Your task to perform on an android device: Clear the cart on newegg. Add logitech g933 to the cart on newegg Image 0: 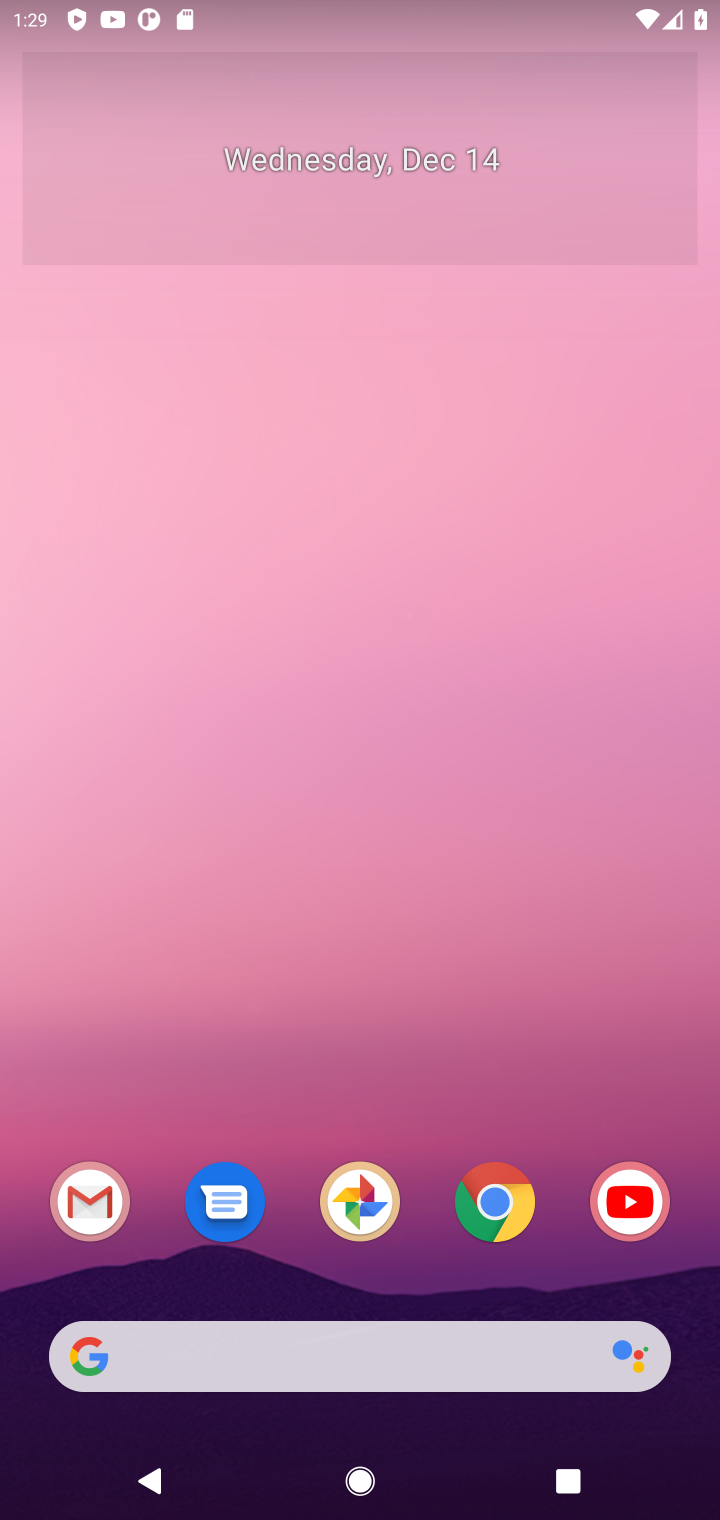
Step 0: click (489, 1209)
Your task to perform on an android device: Clear the cart on newegg. Add logitech g933 to the cart on newegg Image 1: 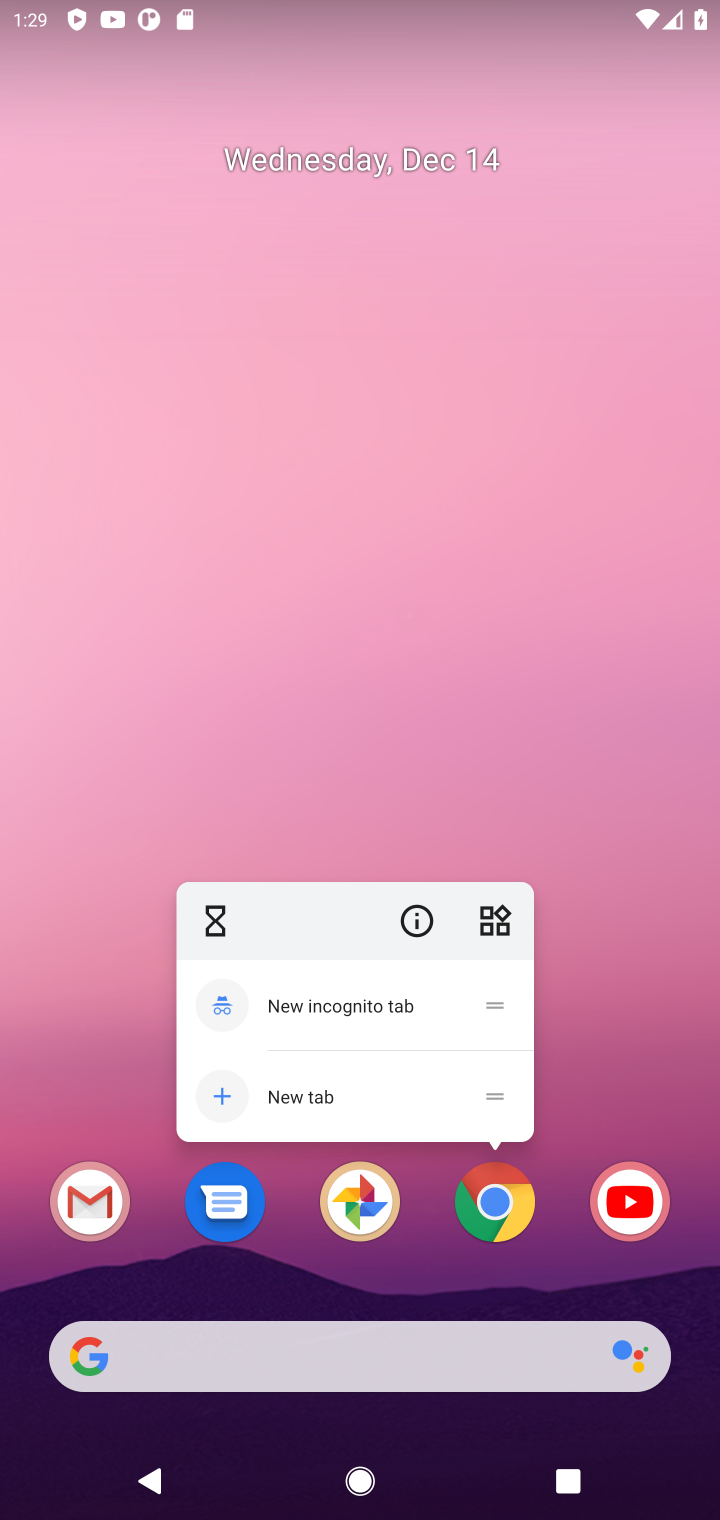
Step 1: click (500, 1176)
Your task to perform on an android device: Clear the cart on newegg. Add logitech g933 to the cart on newegg Image 2: 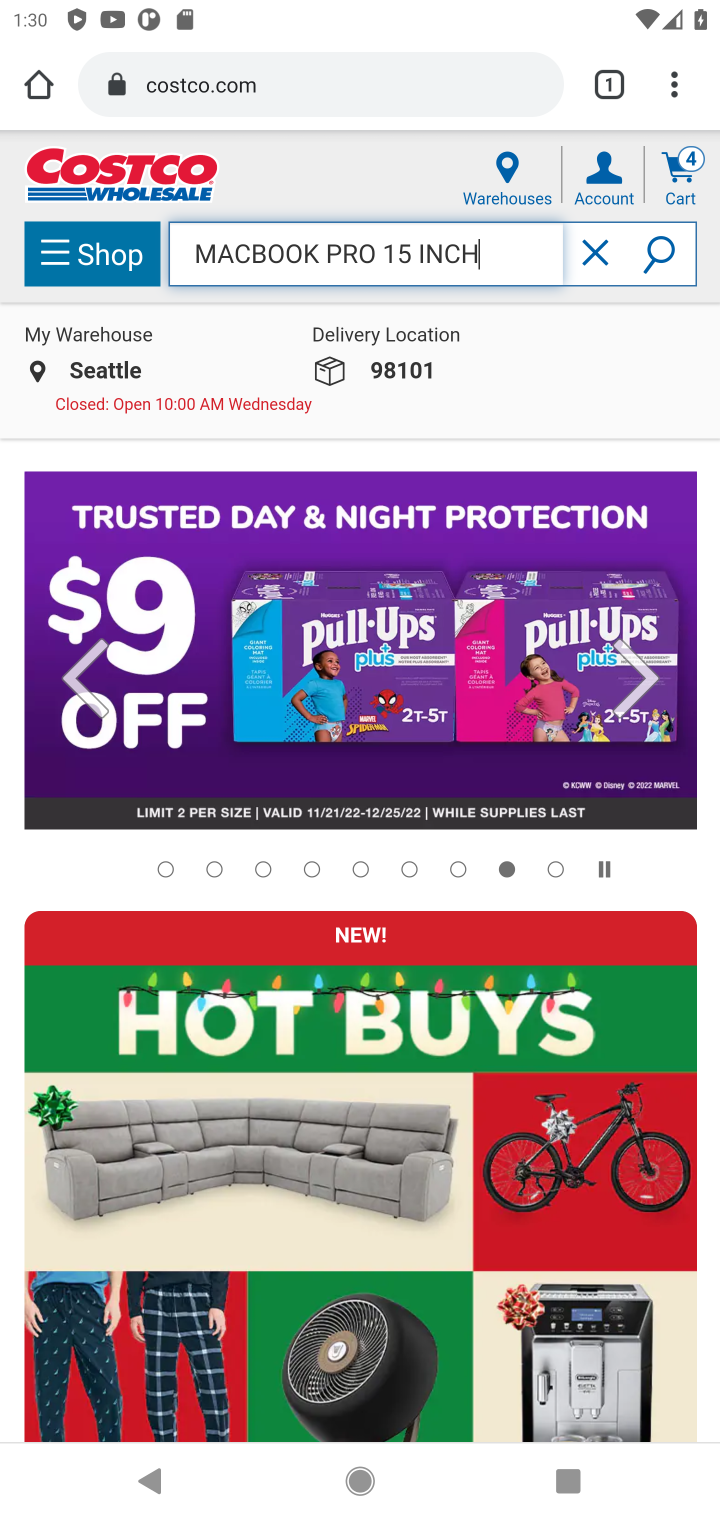
Step 2: click (289, 69)
Your task to perform on an android device: Clear the cart on newegg. Add logitech g933 to the cart on newegg Image 3: 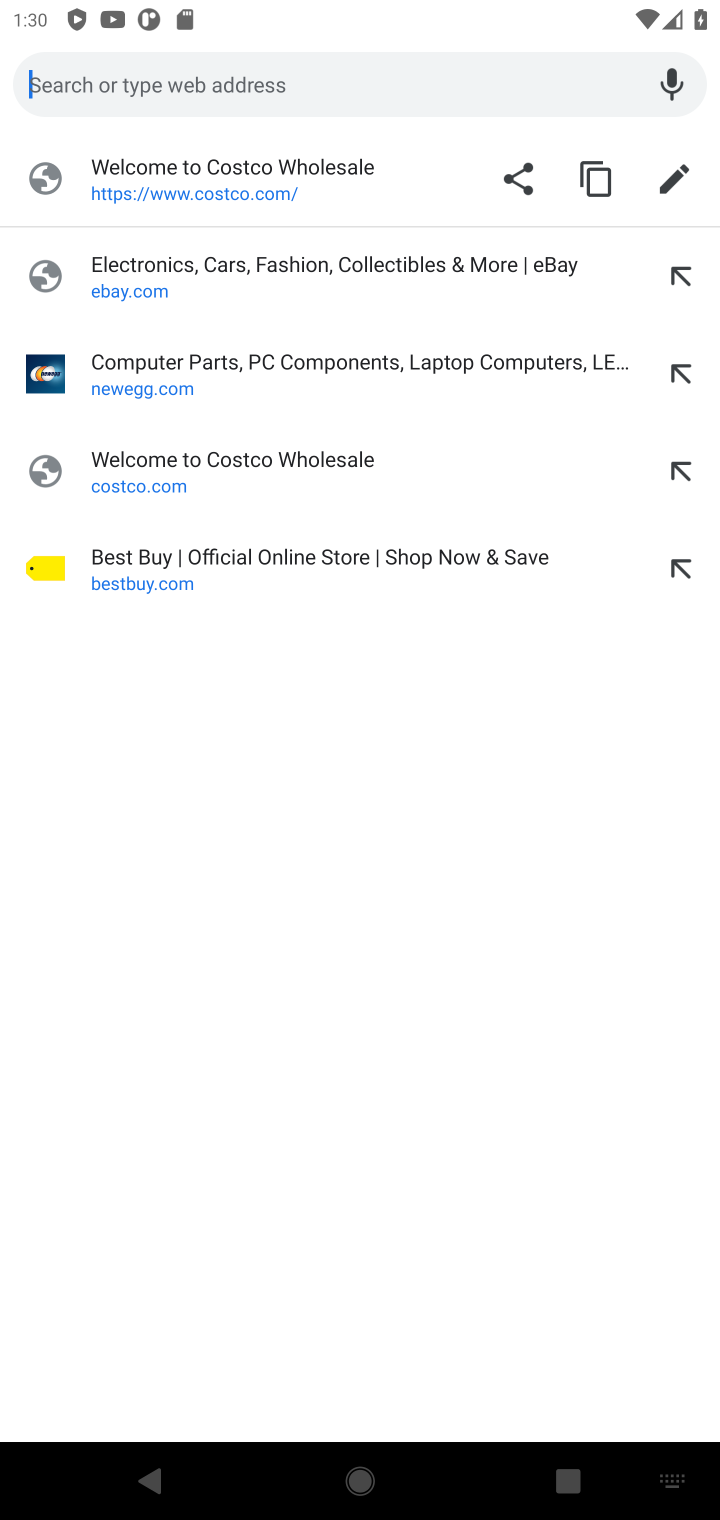
Step 3: click (198, 362)
Your task to perform on an android device: Clear the cart on newegg. Add logitech g933 to the cart on newegg Image 4: 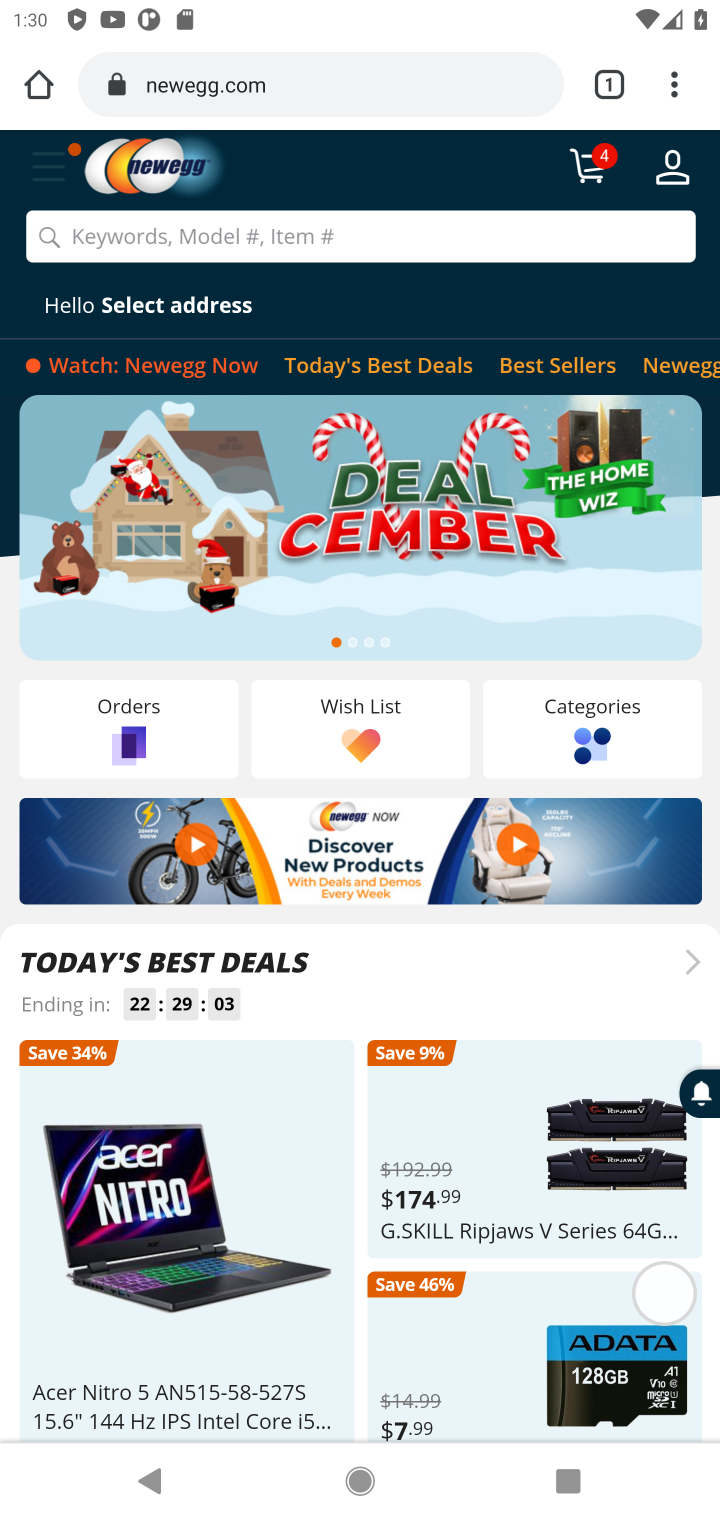
Step 4: click (394, 232)
Your task to perform on an android device: Clear the cart on newegg. Add logitech g933 to the cart on newegg Image 5: 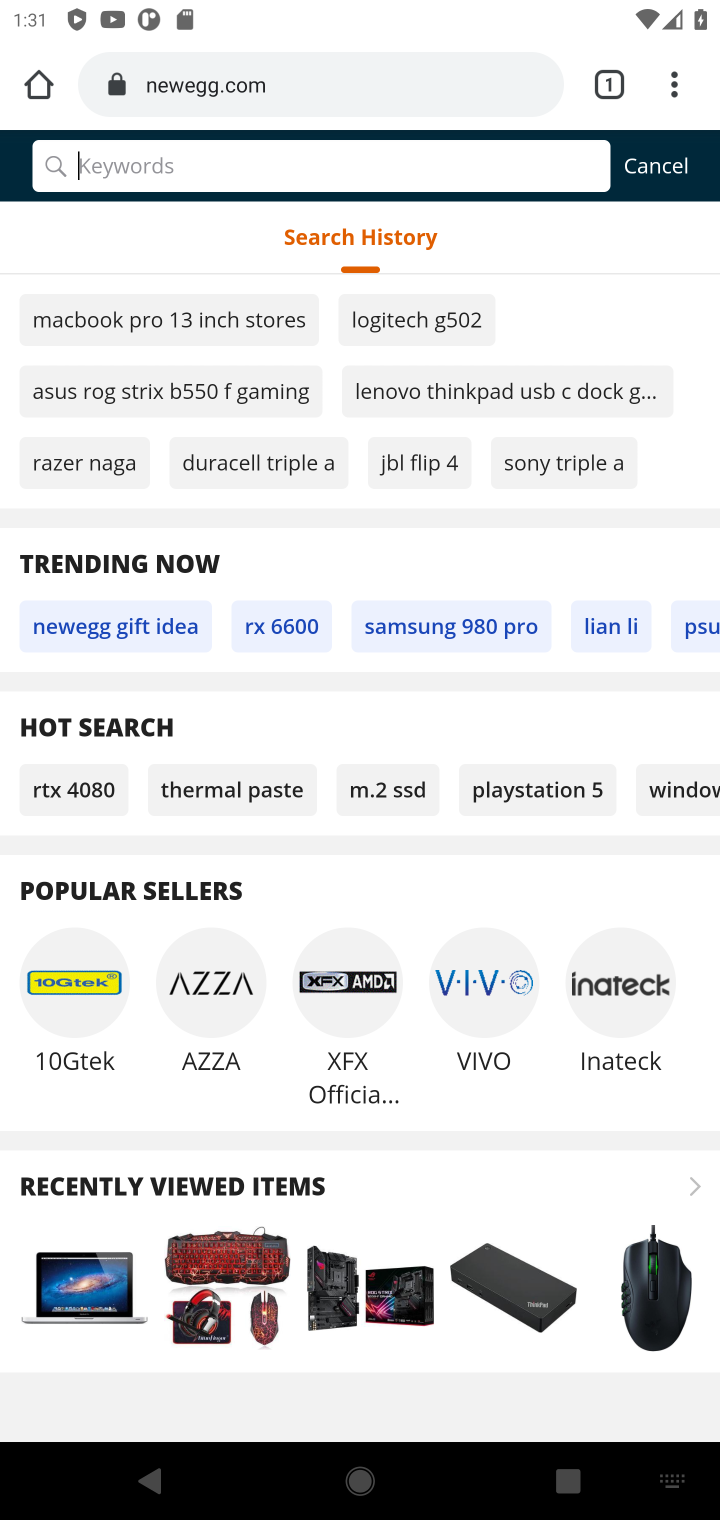
Step 5: click (374, 89)
Your task to perform on an android device: Clear the cart on newegg. Add logitech g933 to the cart on newegg Image 6: 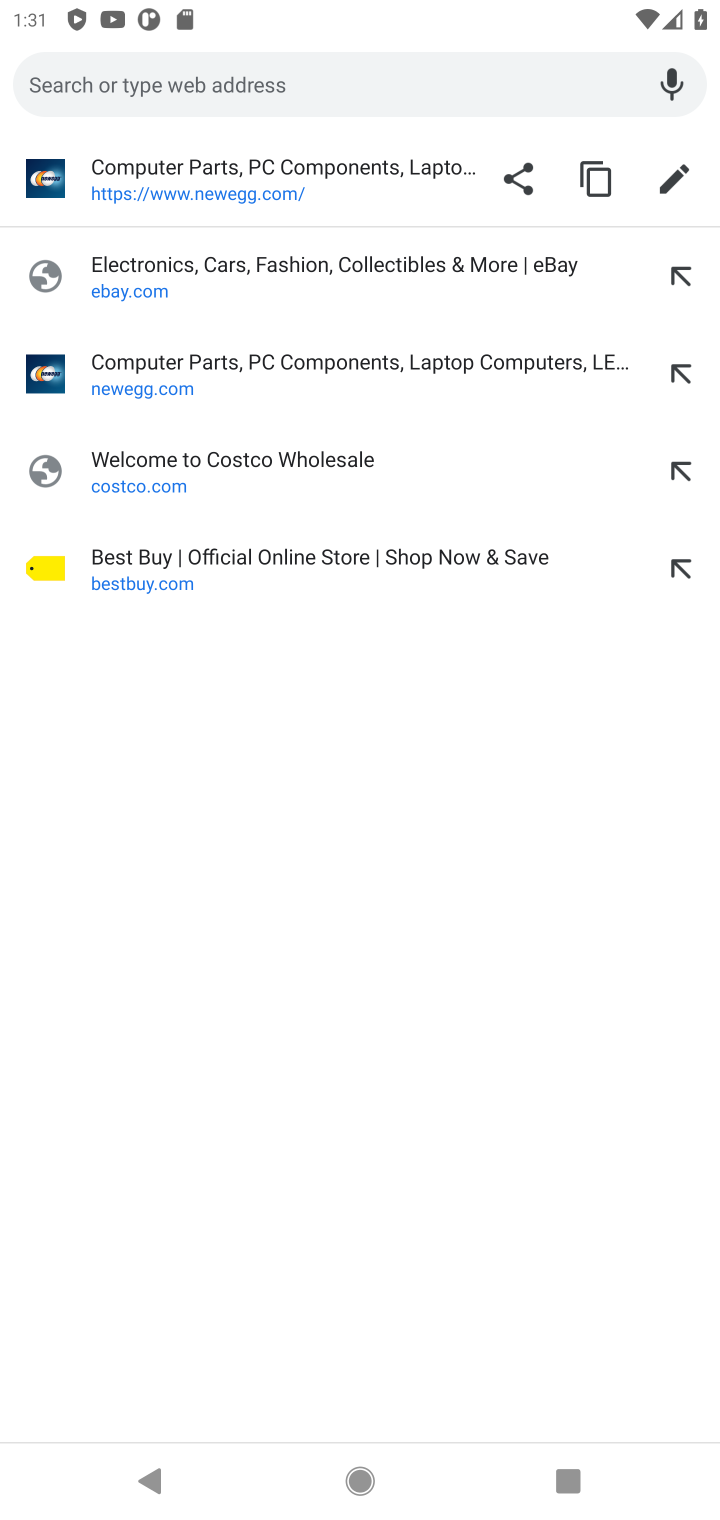
Step 6: click (129, 186)
Your task to perform on an android device: Clear the cart on newegg. Add logitech g933 to the cart on newegg Image 7: 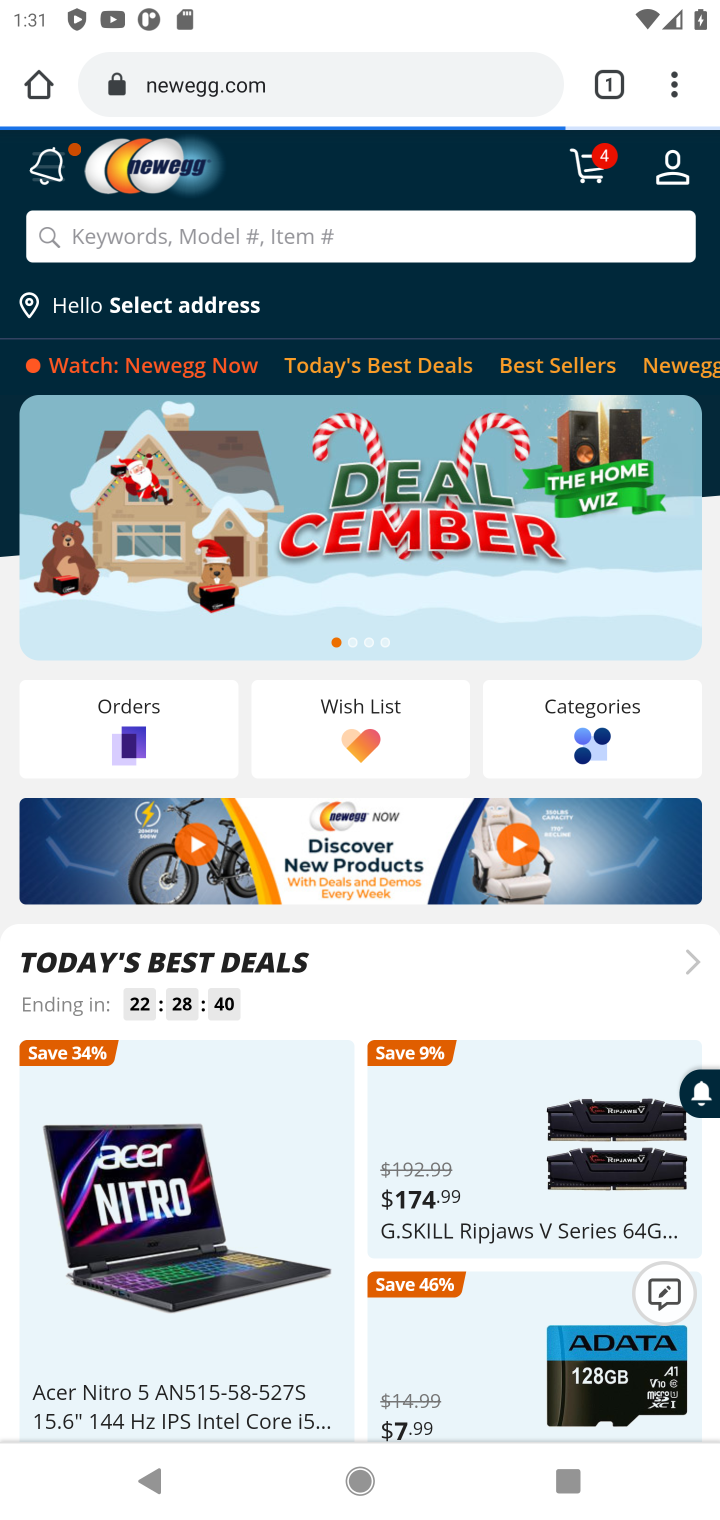
Step 7: click (595, 168)
Your task to perform on an android device: Clear the cart on newegg. Add logitech g933 to the cart on newegg Image 8: 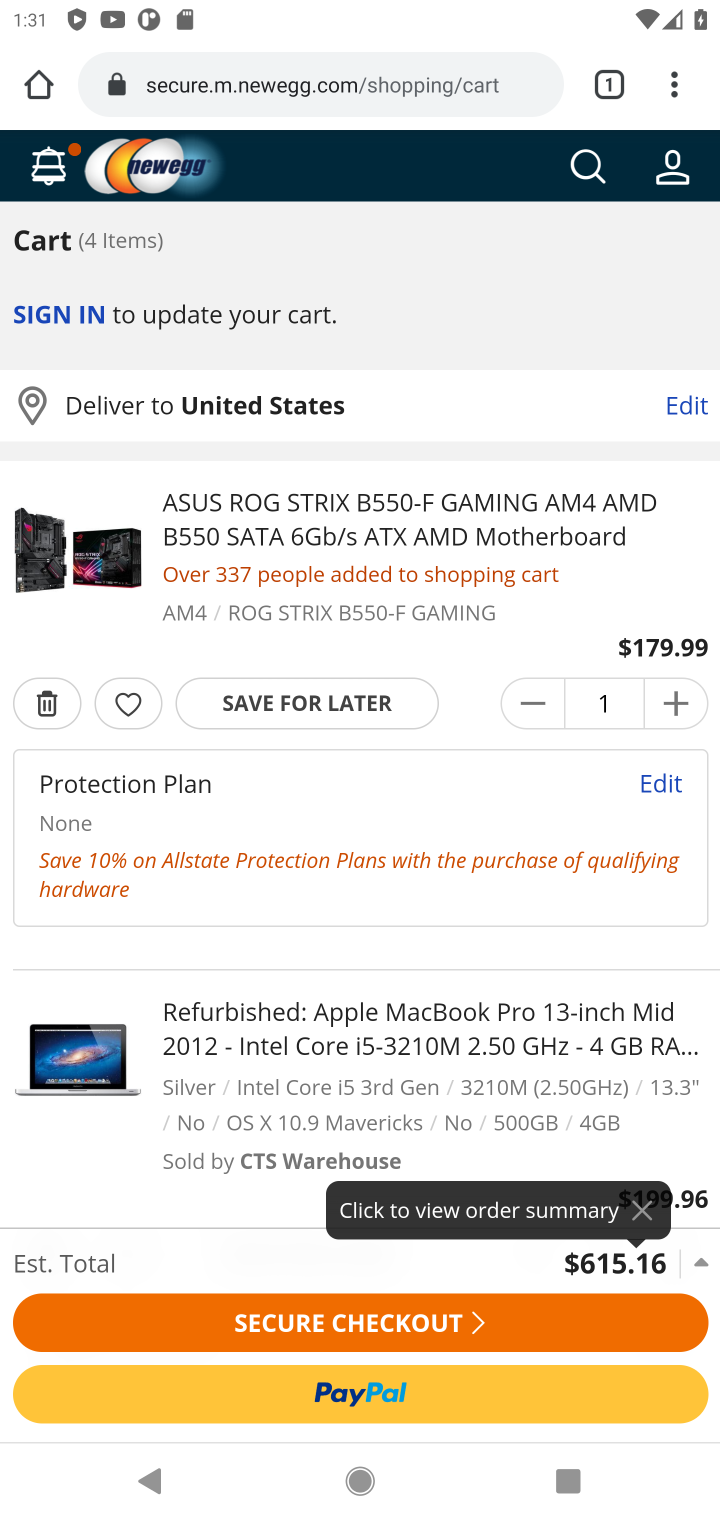
Step 8: click (47, 703)
Your task to perform on an android device: Clear the cart on newegg. Add logitech g933 to the cart on newegg Image 9: 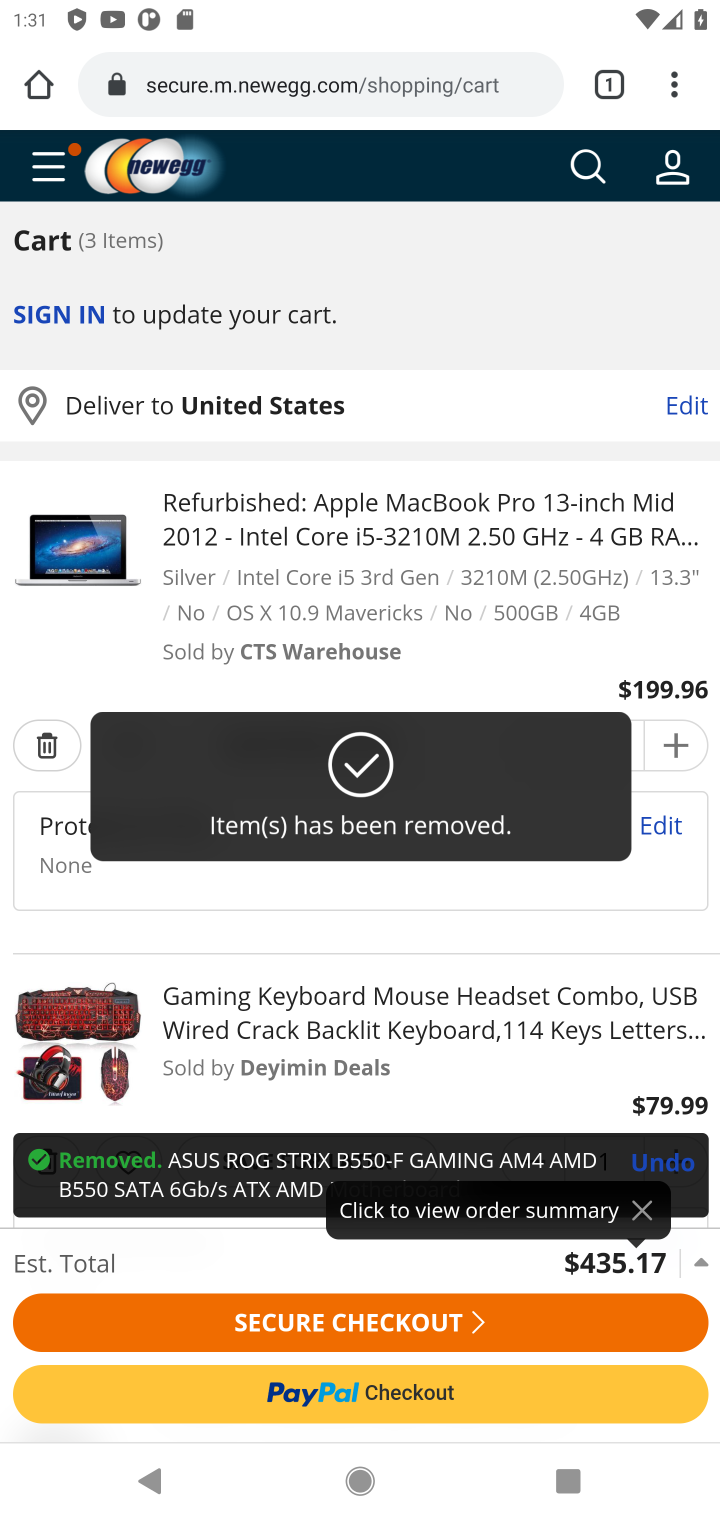
Step 9: click (48, 744)
Your task to perform on an android device: Clear the cart on newegg. Add logitech g933 to the cart on newegg Image 10: 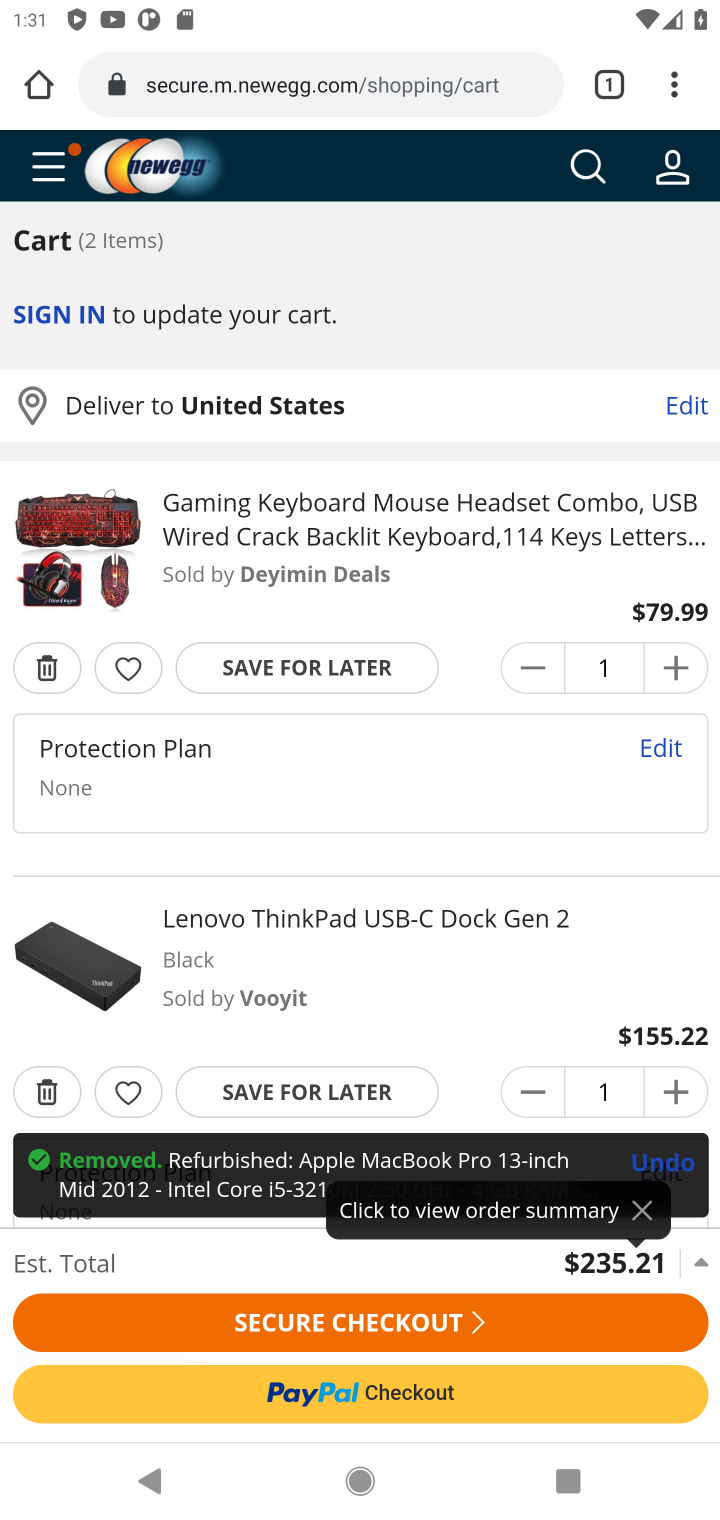
Step 10: click (44, 683)
Your task to perform on an android device: Clear the cart on newegg. Add logitech g933 to the cart on newegg Image 11: 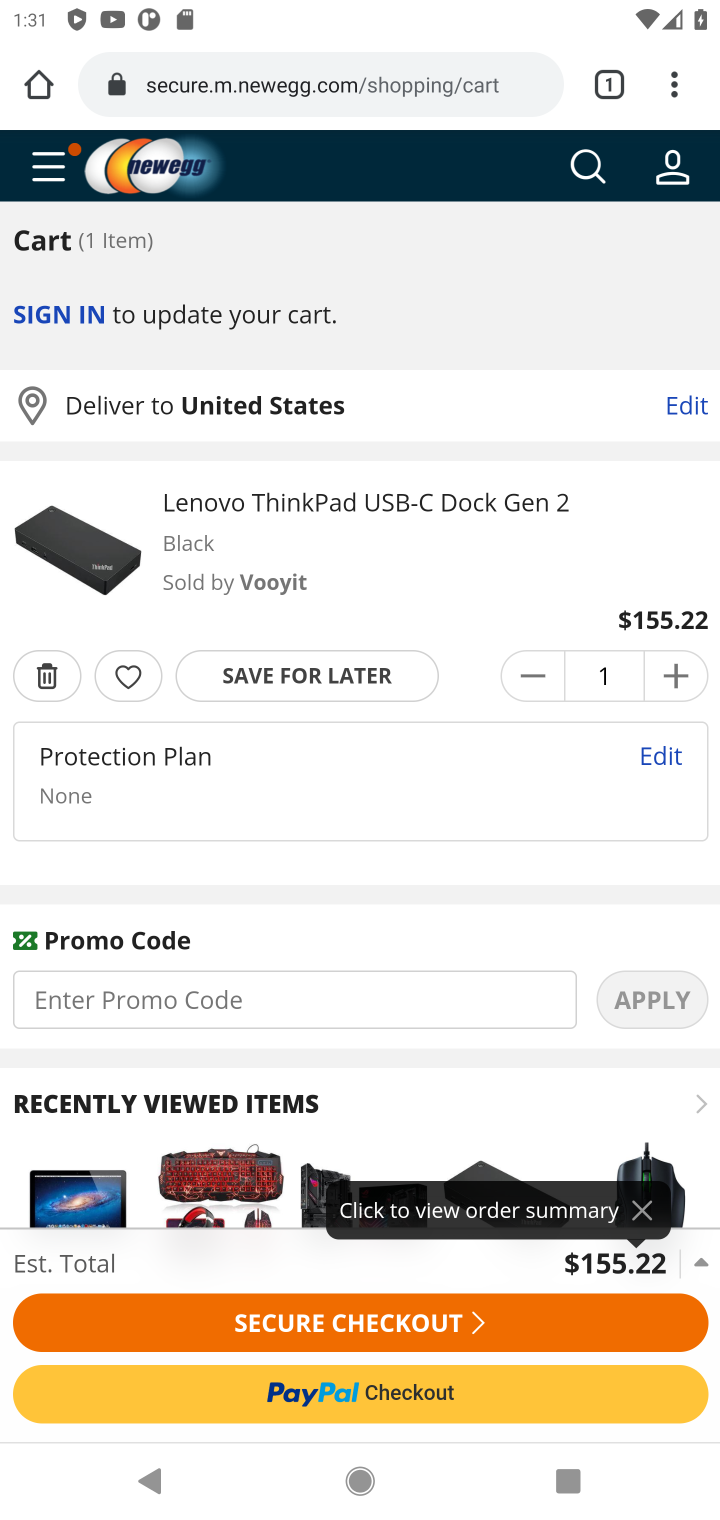
Step 11: click (44, 683)
Your task to perform on an android device: Clear the cart on newegg. Add logitech g933 to the cart on newegg Image 12: 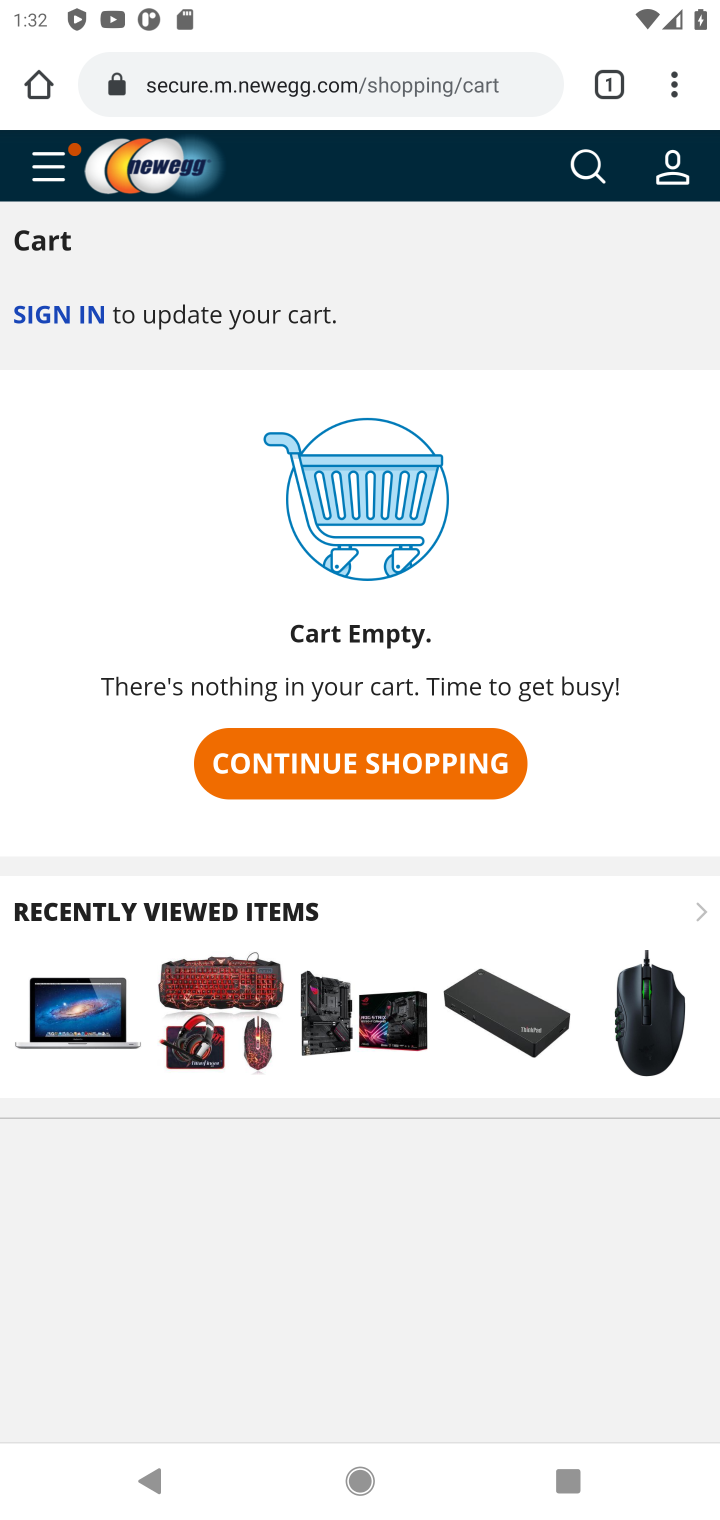
Step 12: click (578, 159)
Your task to perform on an android device: Clear the cart on newegg. Add logitech g933 to the cart on newegg Image 13: 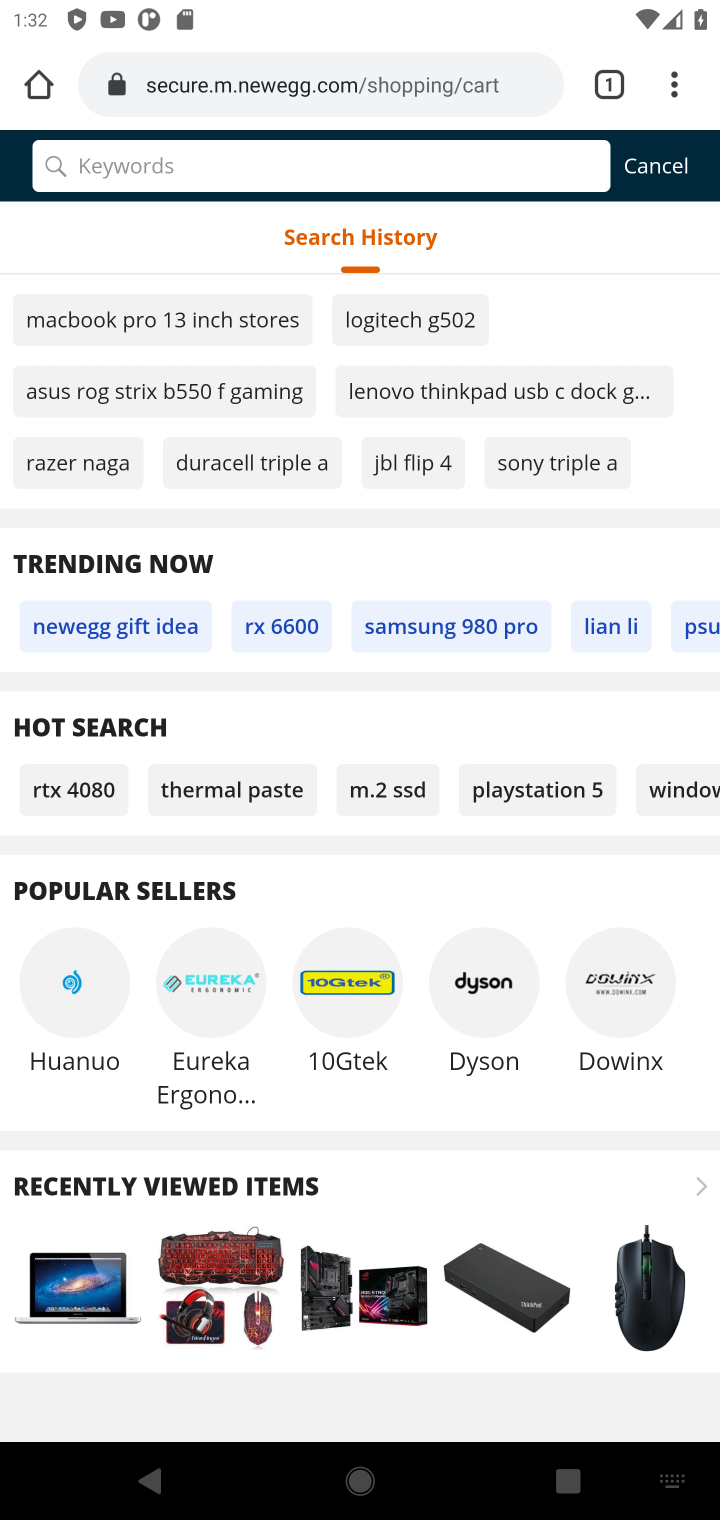
Step 13: type "logitech g933"
Your task to perform on an android device: Clear the cart on newegg. Add logitech g933 to the cart on newegg Image 14: 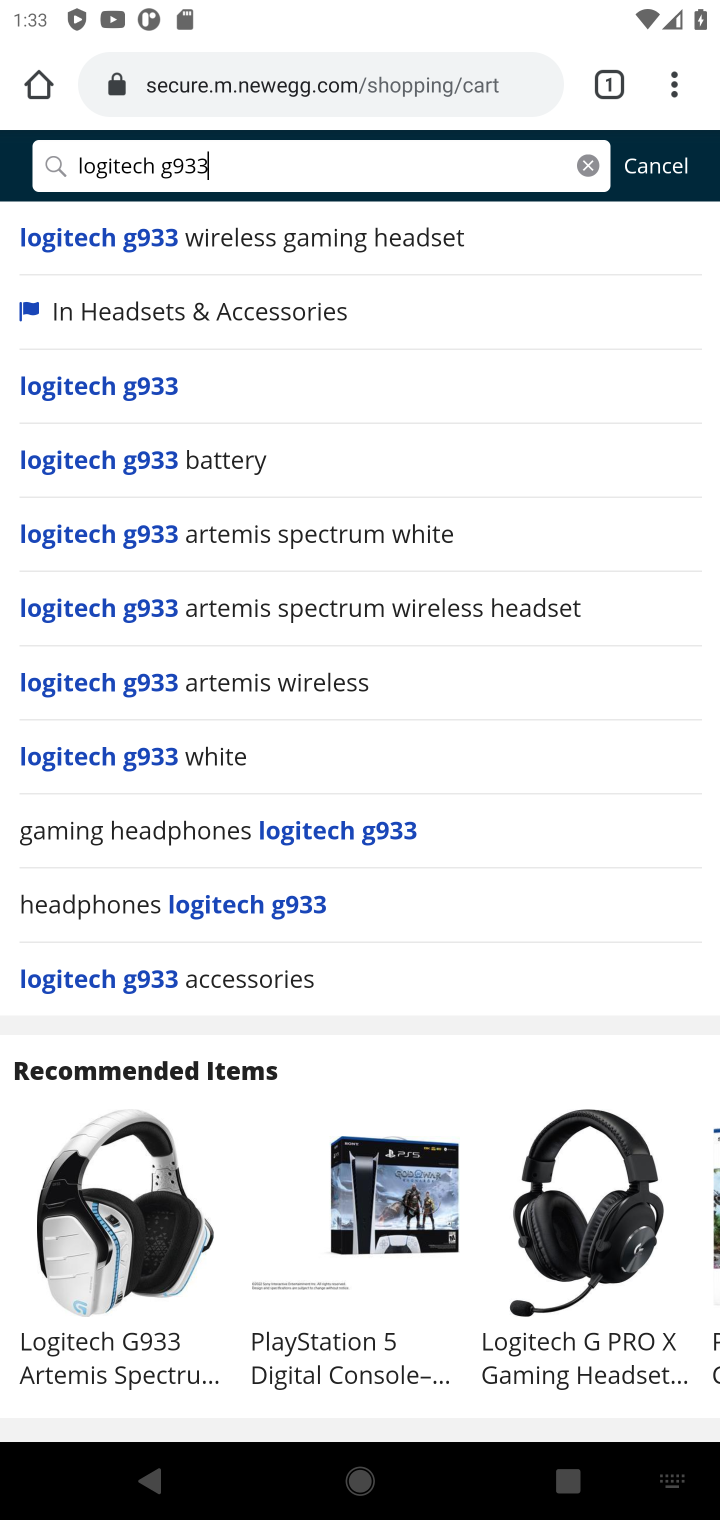
Step 14: click (88, 242)
Your task to perform on an android device: Clear the cart on newegg. Add logitech g933 to the cart on newegg Image 15: 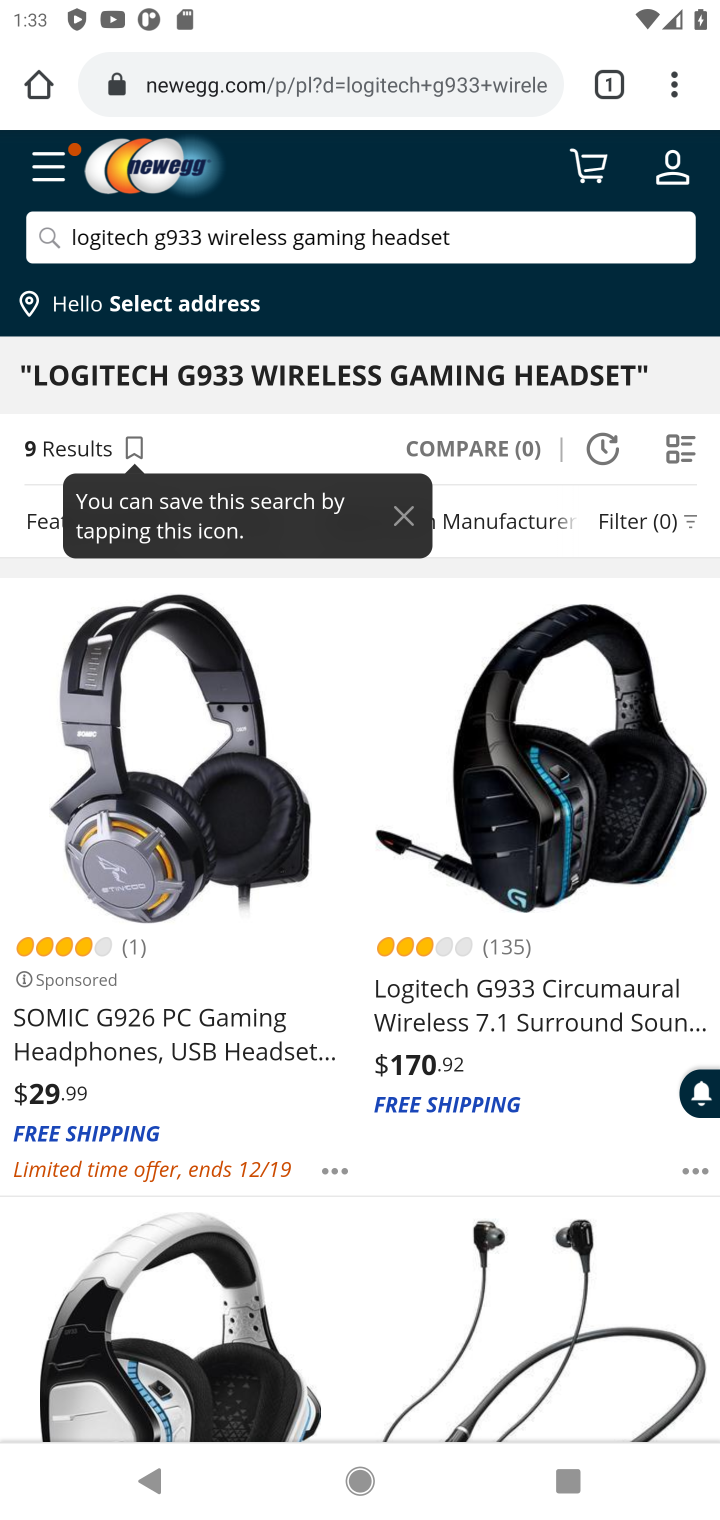
Step 15: click (206, 770)
Your task to perform on an android device: Clear the cart on newegg. Add logitech g933 to the cart on newegg Image 16: 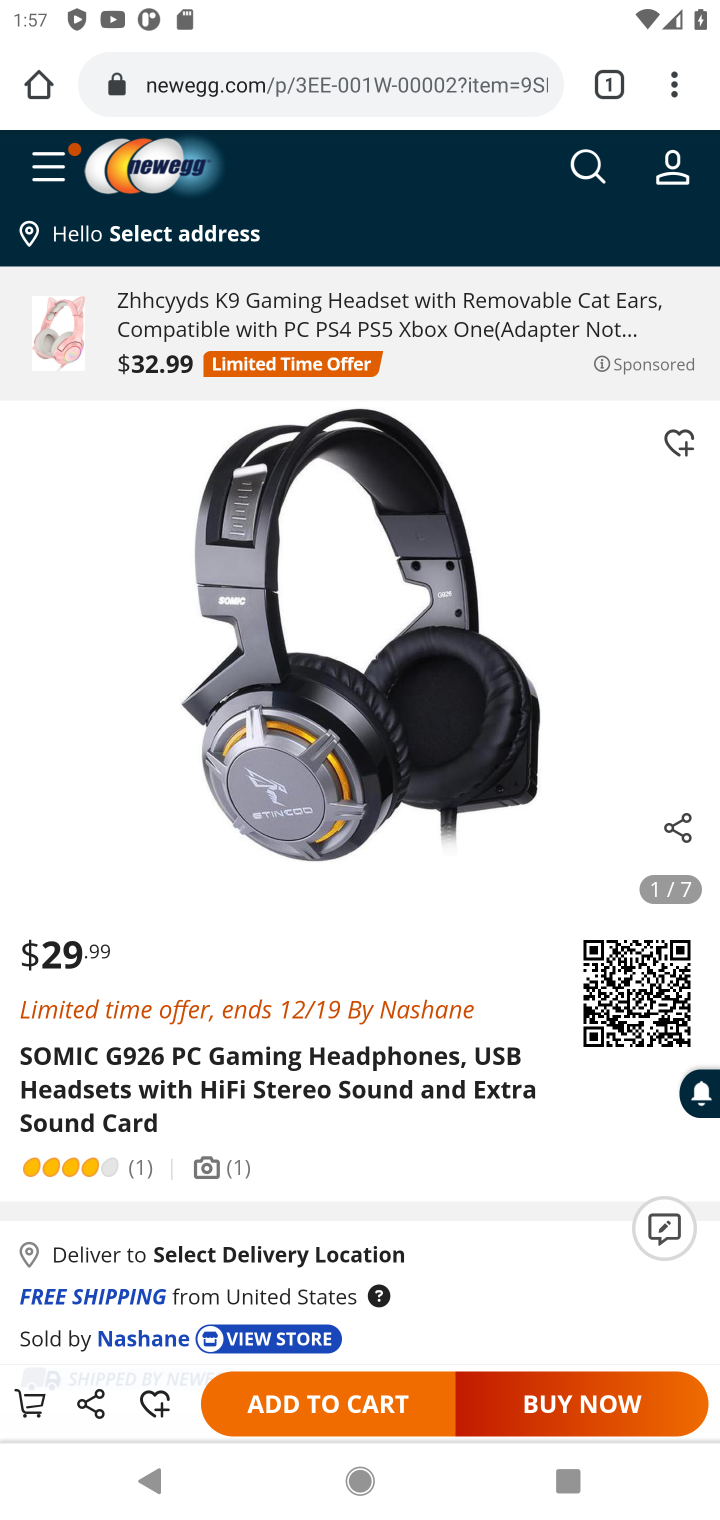
Step 16: task complete